Your task to perform on an android device: Search for Mexican restaurants on Maps Image 0: 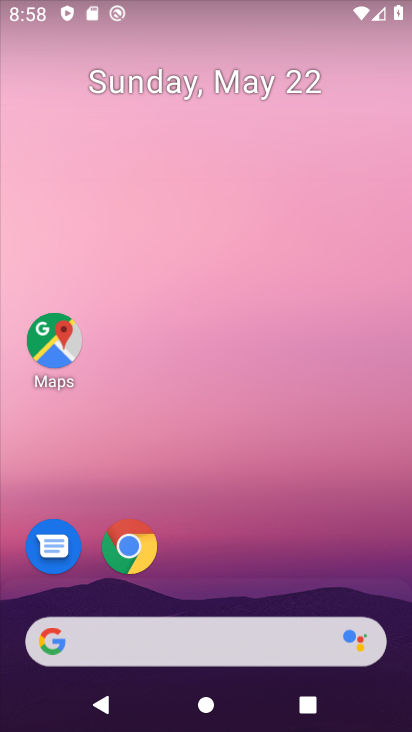
Step 0: click (45, 335)
Your task to perform on an android device: Search for Mexican restaurants on Maps Image 1: 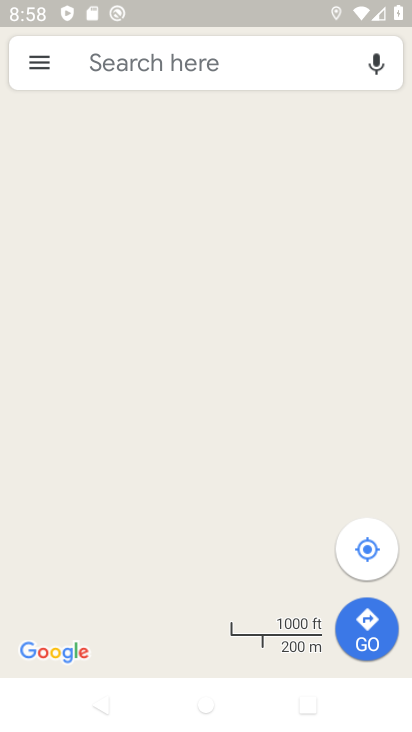
Step 1: click (174, 41)
Your task to perform on an android device: Search for Mexican restaurants on Maps Image 2: 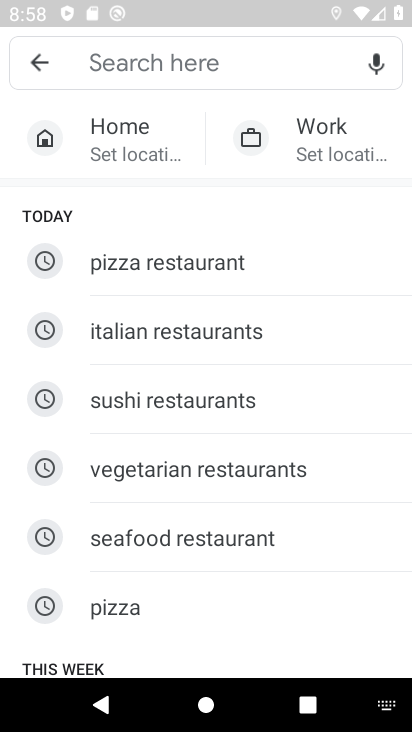
Step 2: type "mexican restraunts"
Your task to perform on an android device: Search for Mexican restaurants on Maps Image 3: 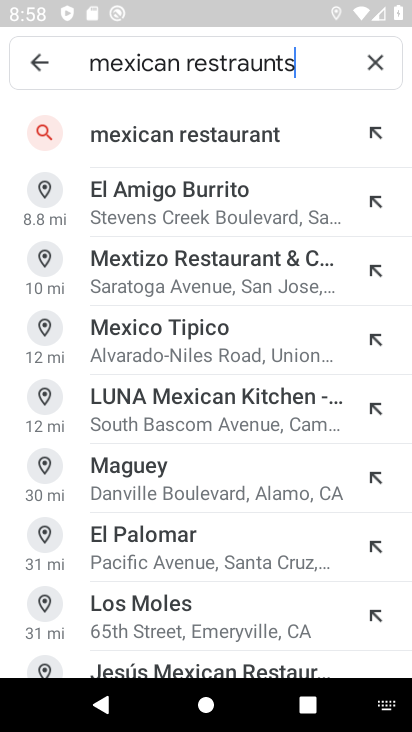
Step 3: click (209, 132)
Your task to perform on an android device: Search for Mexican restaurants on Maps Image 4: 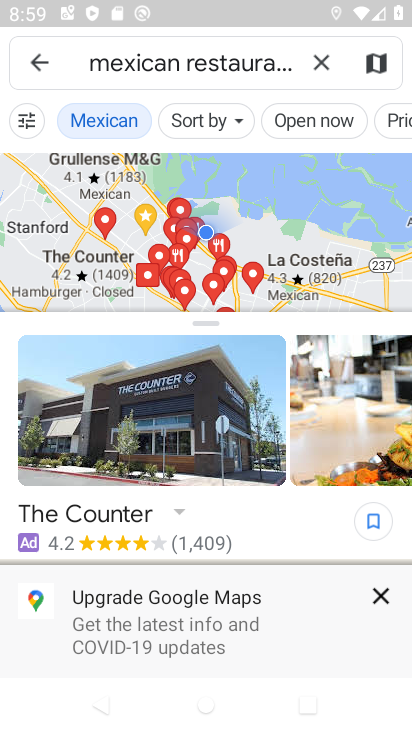
Step 4: task complete